Your task to perform on an android device: add a contact in the contacts app Image 0: 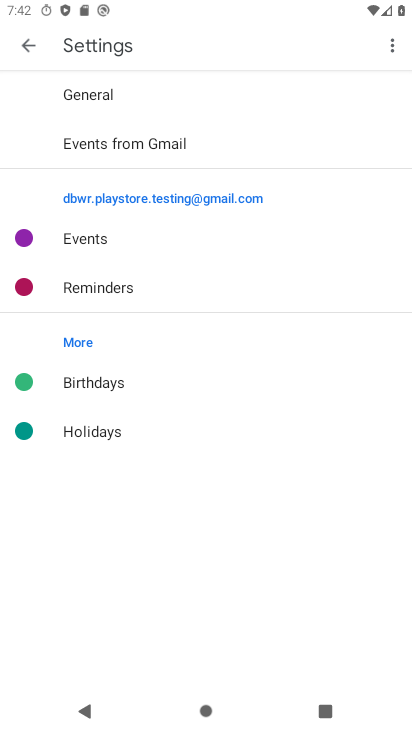
Step 0: press home button
Your task to perform on an android device: add a contact in the contacts app Image 1: 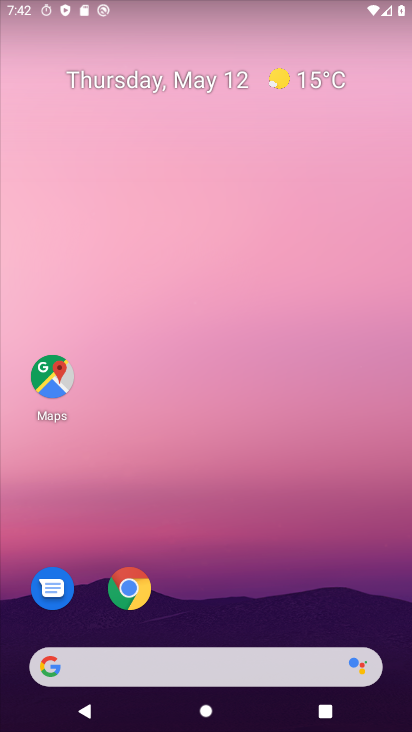
Step 1: drag from (235, 612) to (220, 240)
Your task to perform on an android device: add a contact in the contacts app Image 2: 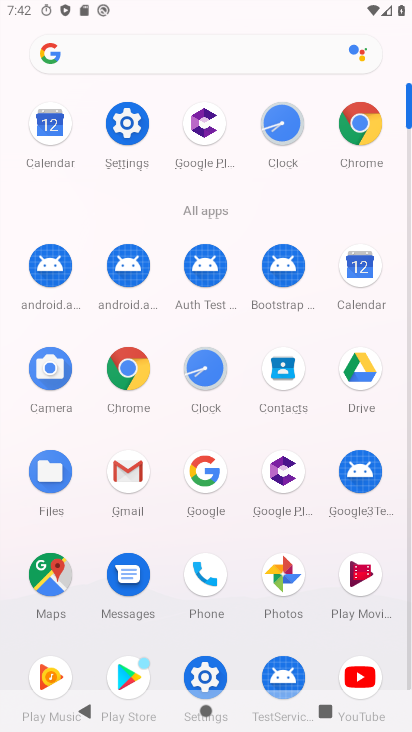
Step 2: click (271, 365)
Your task to perform on an android device: add a contact in the contacts app Image 3: 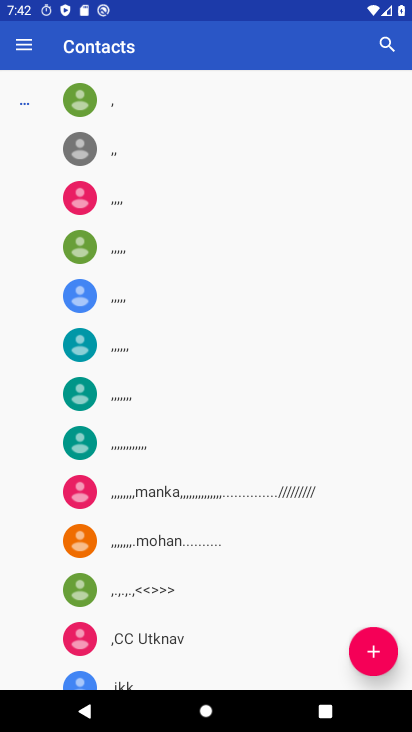
Step 3: click (375, 638)
Your task to perform on an android device: add a contact in the contacts app Image 4: 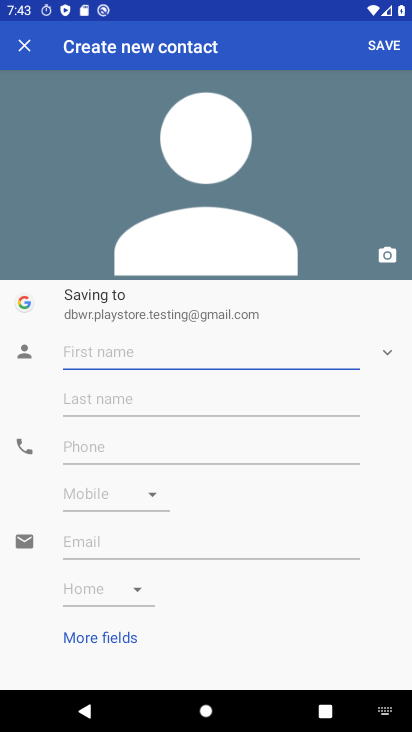
Step 4: type "bb"
Your task to perform on an android device: add a contact in the contacts app Image 5: 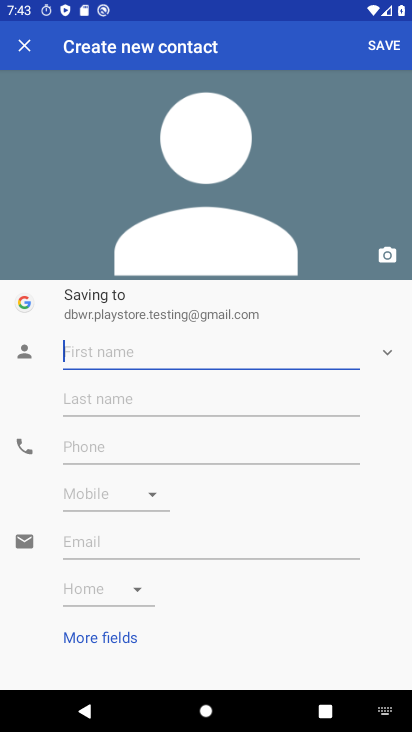
Step 5: click (96, 391)
Your task to perform on an android device: add a contact in the contacts app Image 6: 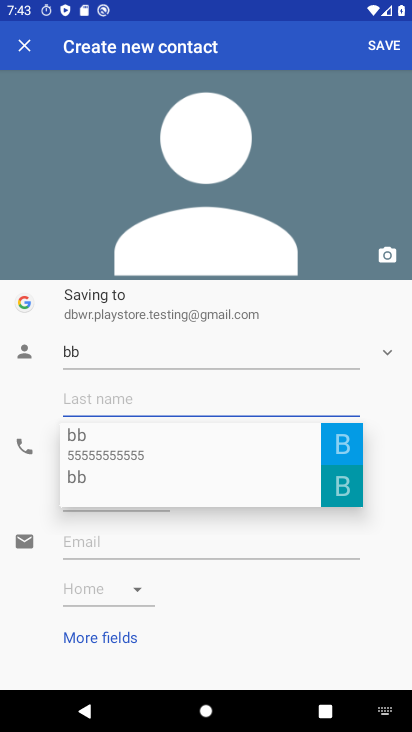
Step 6: type "cc"
Your task to perform on an android device: add a contact in the contacts app Image 7: 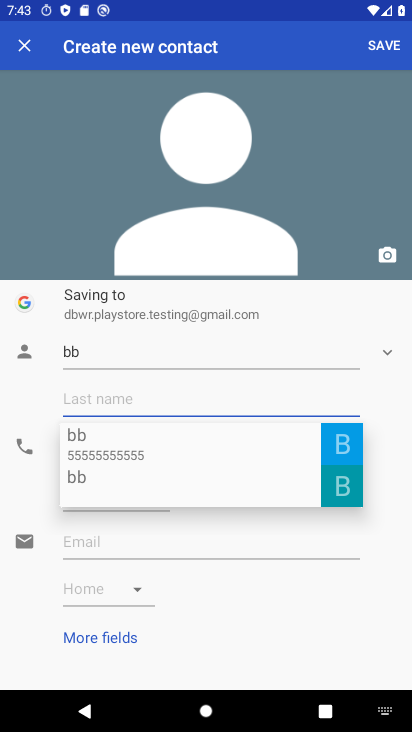
Step 7: click (130, 554)
Your task to perform on an android device: add a contact in the contacts app Image 8: 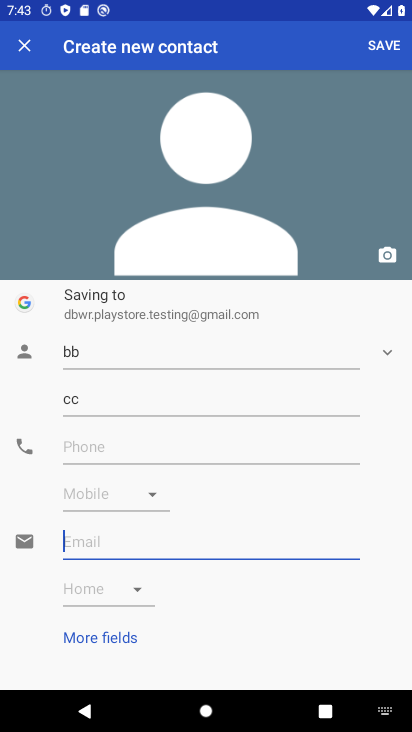
Step 8: click (69, 451)
Your task to perform on an android device: add a contact in the contacts app Image 9: 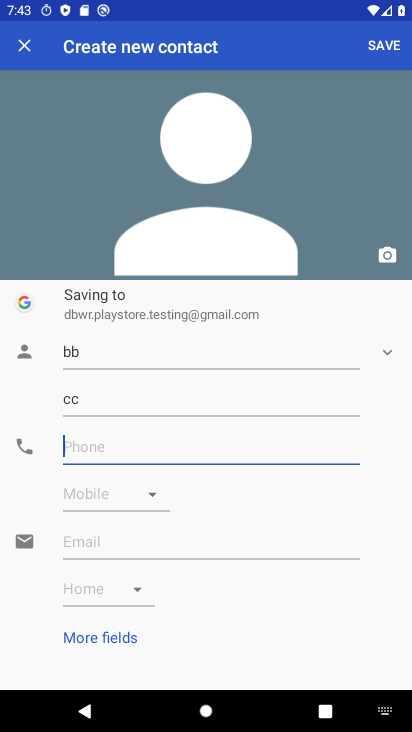
Step 9: type "4335"
Your task to perform on an android device: add a contact in the contacts app Image 10: 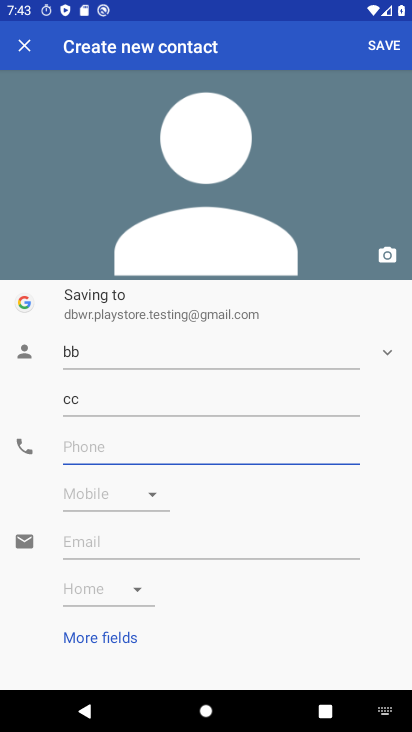
Step 10: click (188, 604)
Your task to perform on an android device: add a contact in the contacts app Image 11: 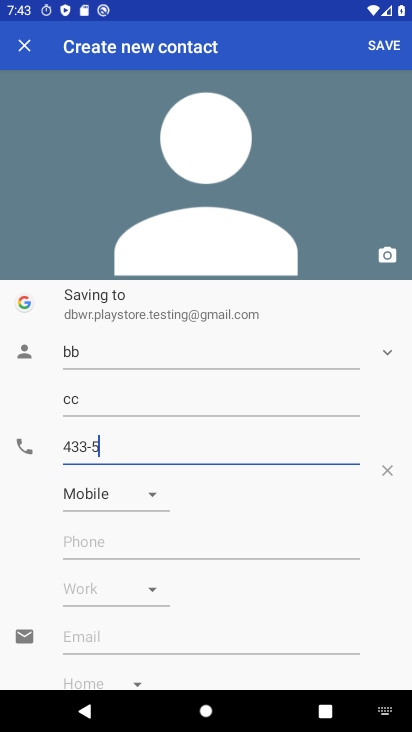
Step 11: click (362, 51)
Your task to perform on an android device: add a contact in the contacts app Image 12: 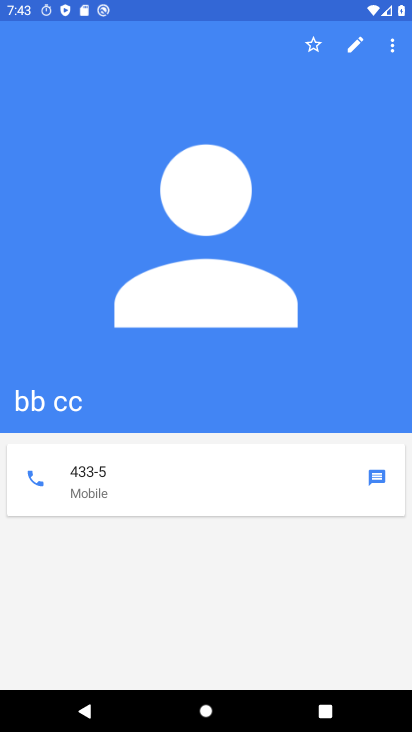
Step 12: task complete